Your task to perform on an android device: Open Yahoo.com Image 0: 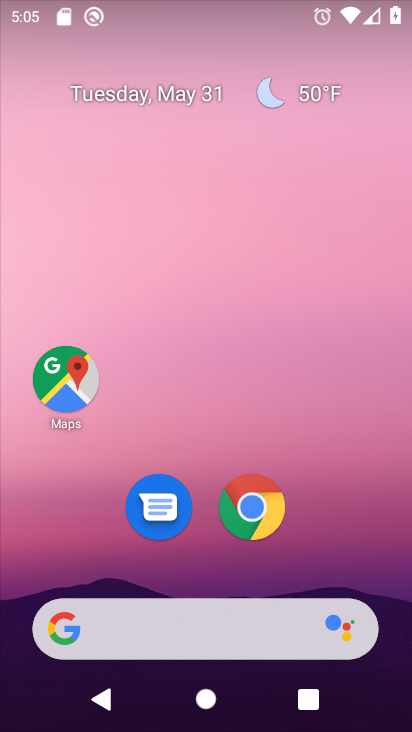
Step 0: click (261, 631)
Your task to perform on an android device: Open Yahoo.com Image 1: 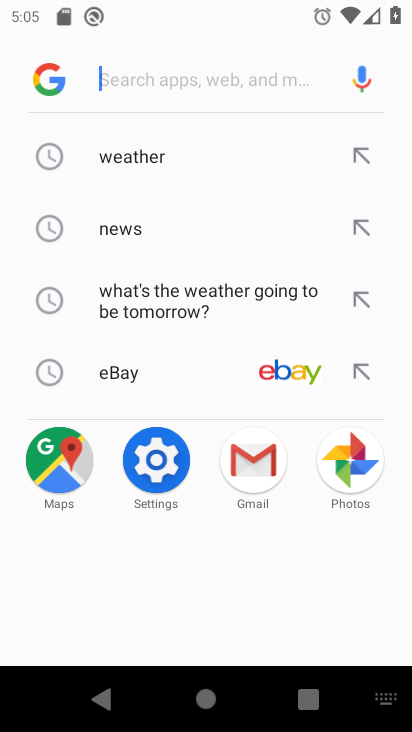
Step 1: type "yahoo.com"
Your task to perform on an android device: Open Yahoo.com Image 2: 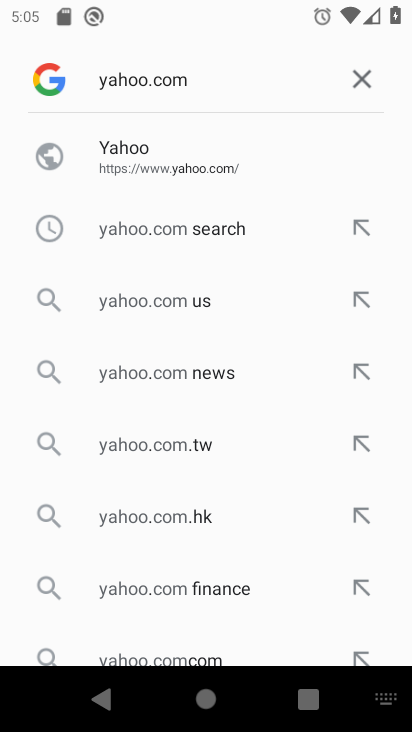
Step 2: click (200, 160)
Your task to perform on an android device: Open Yahoo.com Image 3: 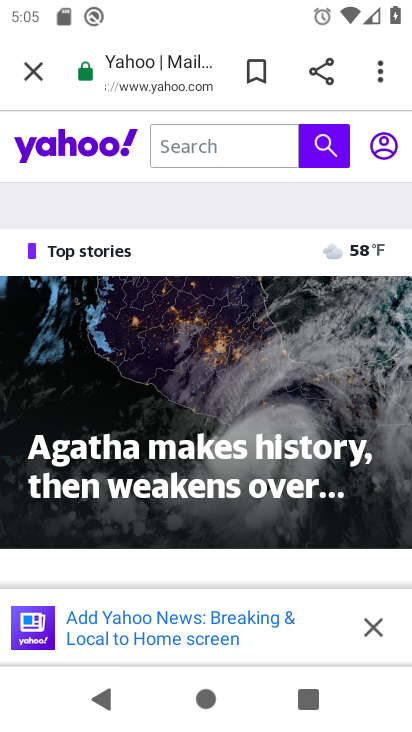
Step 3: task complete